Your task to perform on an android device: Open sound settings Image 0: 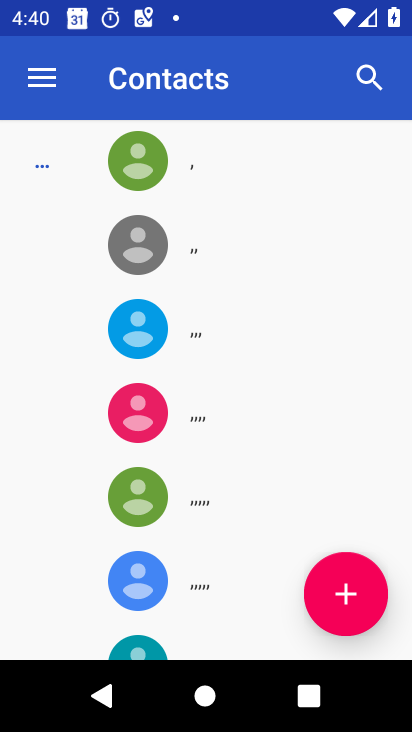
Step 0: press back button
Your task to perform on an android device: Open sound settings Image 1: 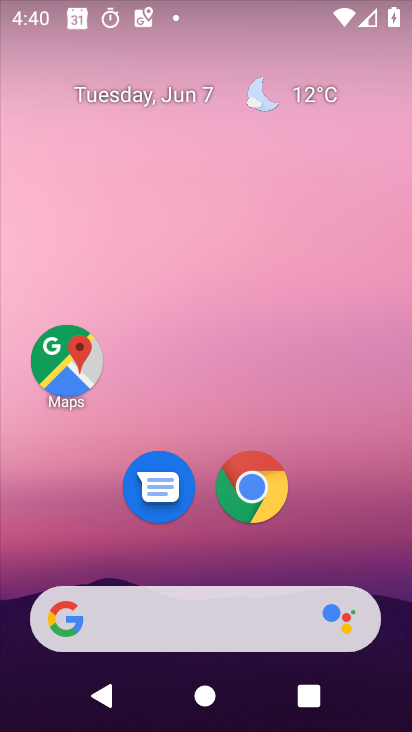
Step 1: drag from (196, 570) to (245, 133)
Your task to perform on an android device: Open sound settings Image 2: 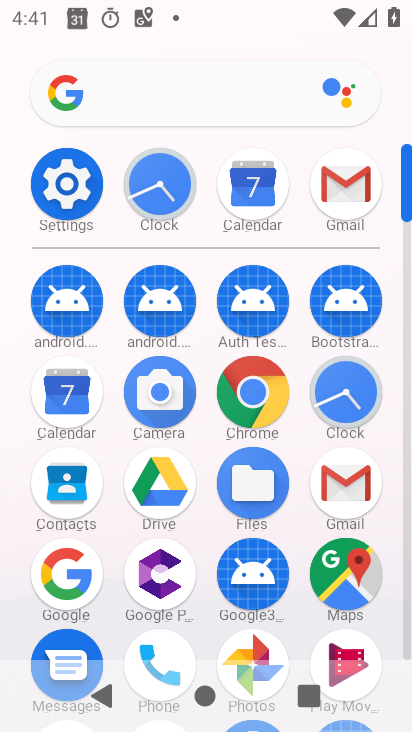
Step 2: click (58, 172)
Your task to perform on an android device: Open sound settings Image 3: 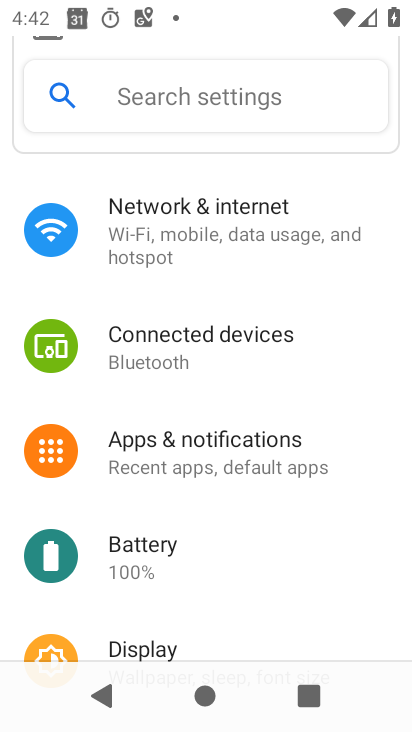
Step 3: drag from (167, 616) to (264, 165)
Your task to perform on an android device: Open sound settings Image 4: 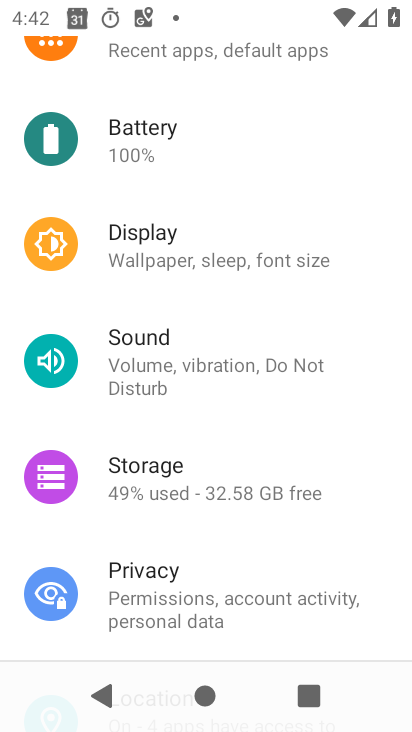
Step 4: click (162, 353)
Your task to perform on an android device: Open sound settings Image 5: 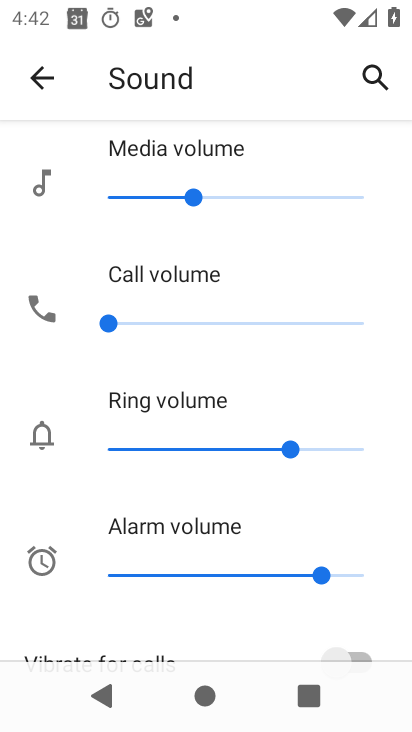
Step 5: task complete